Your task to perform on an android device: Open Google Maps Image 0: 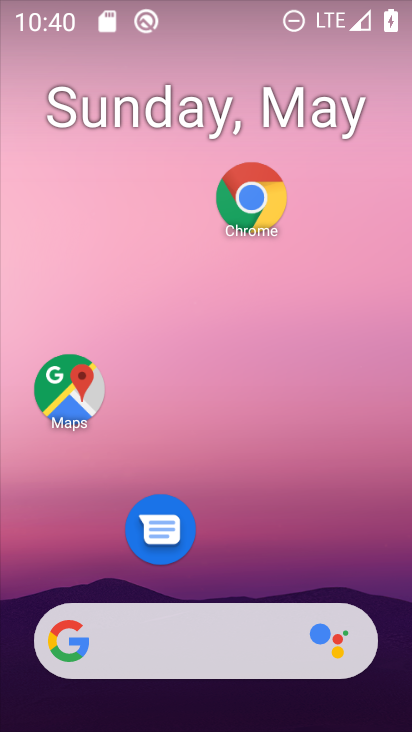
Step 0: drag from (259, 521) to (272, 41)
Your task to perform on an android device: Open Google Maps Image 1: 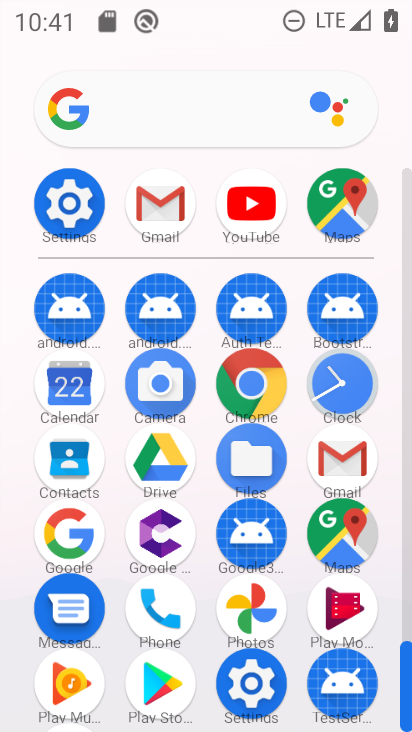
Step 1: click (333, 526)
Your task to perform on an android device: Open Google Maps Image 2: 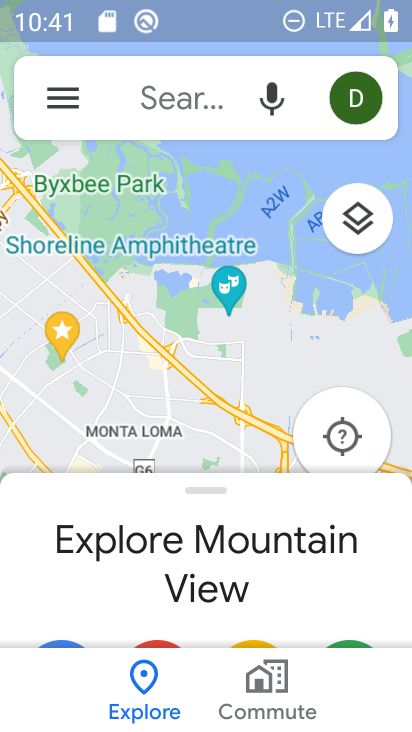
Step 2: task complete